Your task to perform on an android device: uninstall "DoorDash - Dasher" Image 0: 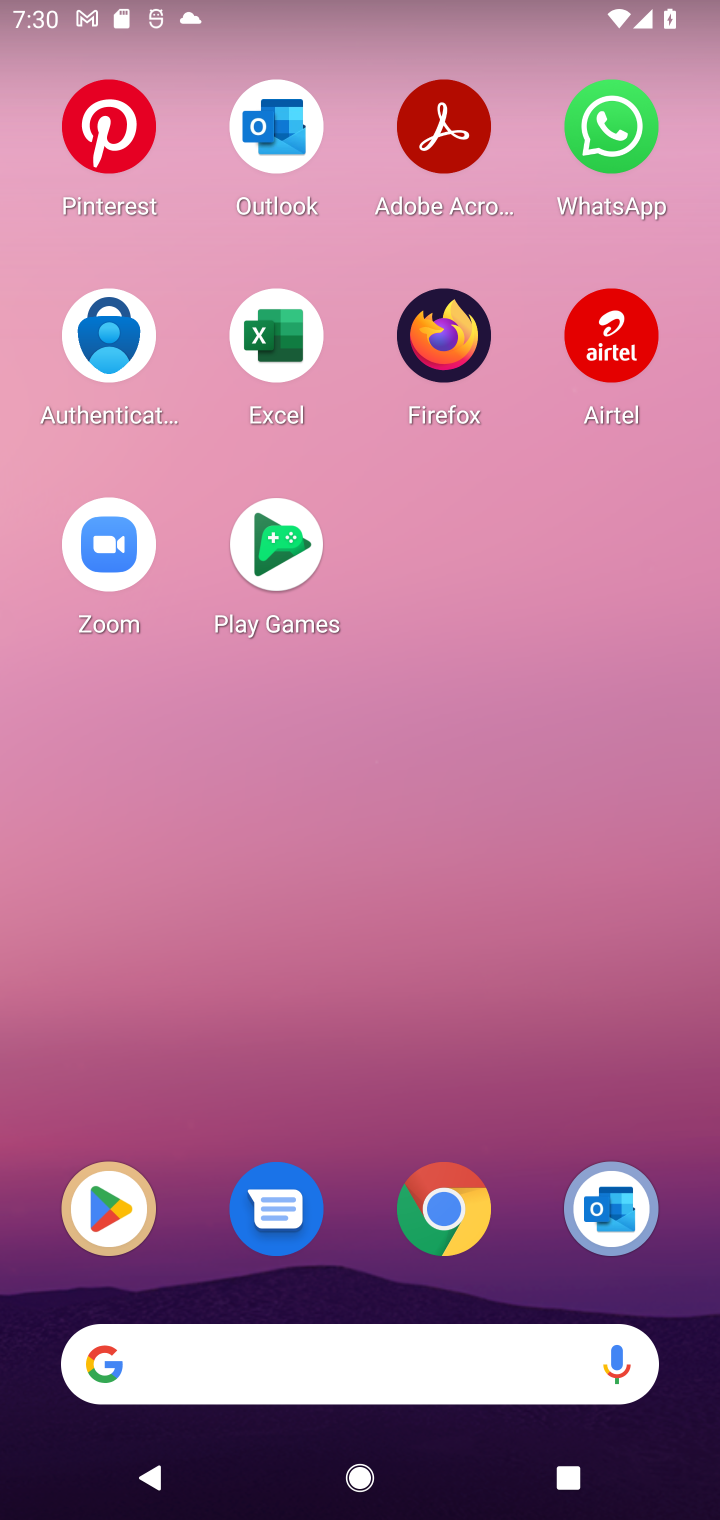
Step 0: drag from (411, 1290) to (438, 506)
Your task to perform on an android device: uninstall "DoorDash - Dasher" Image 1: 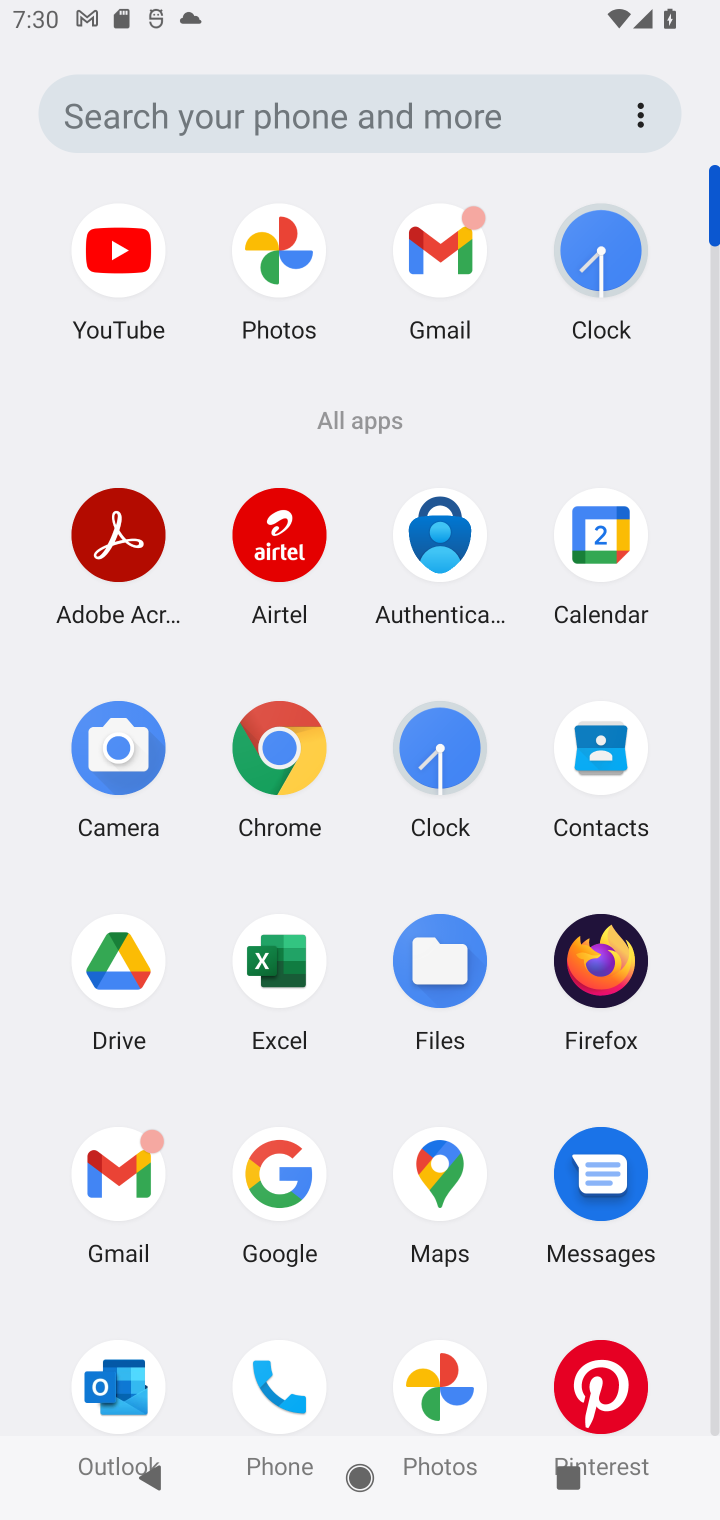
Step 1: drag from (336, 1052) to (370, 683)
Your task to perform on an android device: uninstall "DoorDash - Dasher" Image 2: 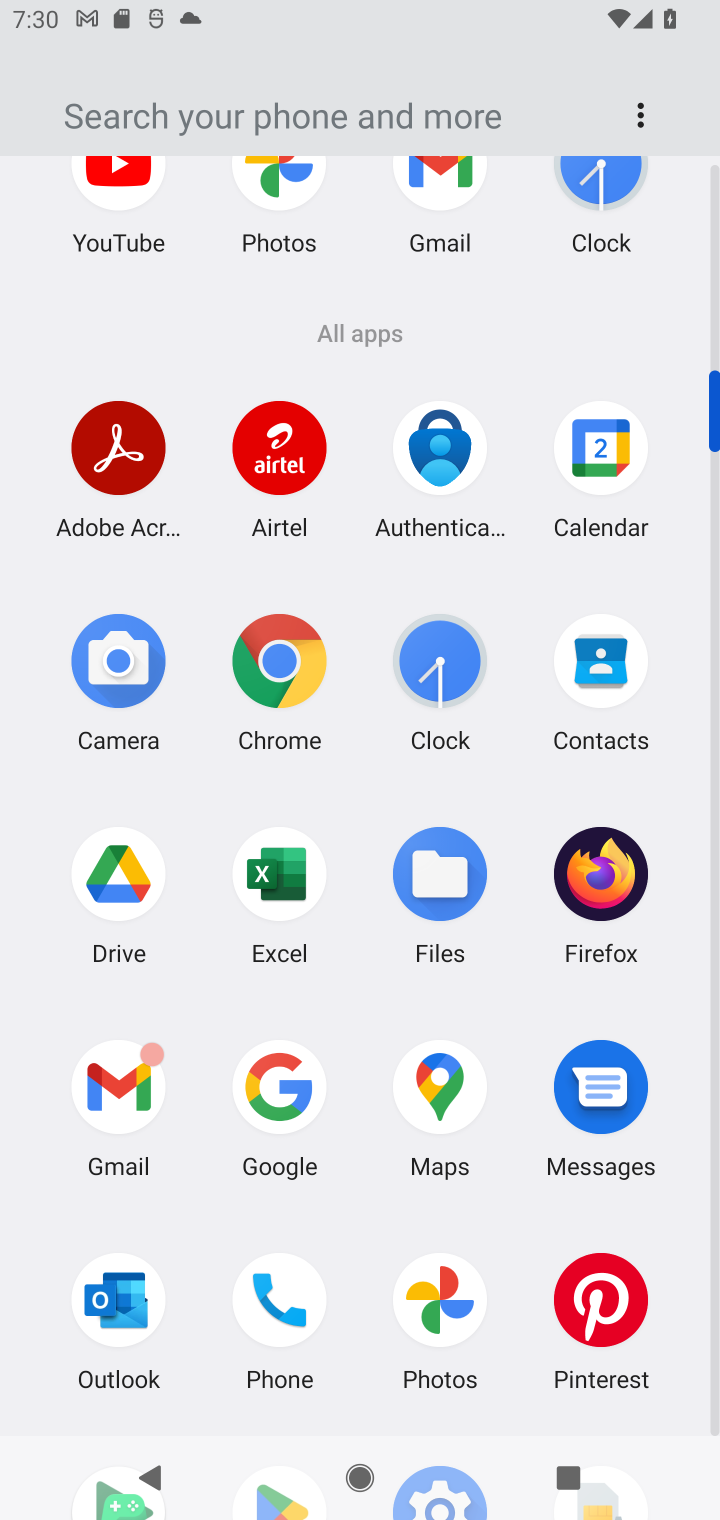
Step 2: drag from (355, 1379) to (354, 678)
Your task to perform on an android device: uninstall "DoorDash - Dasher" Image 3: 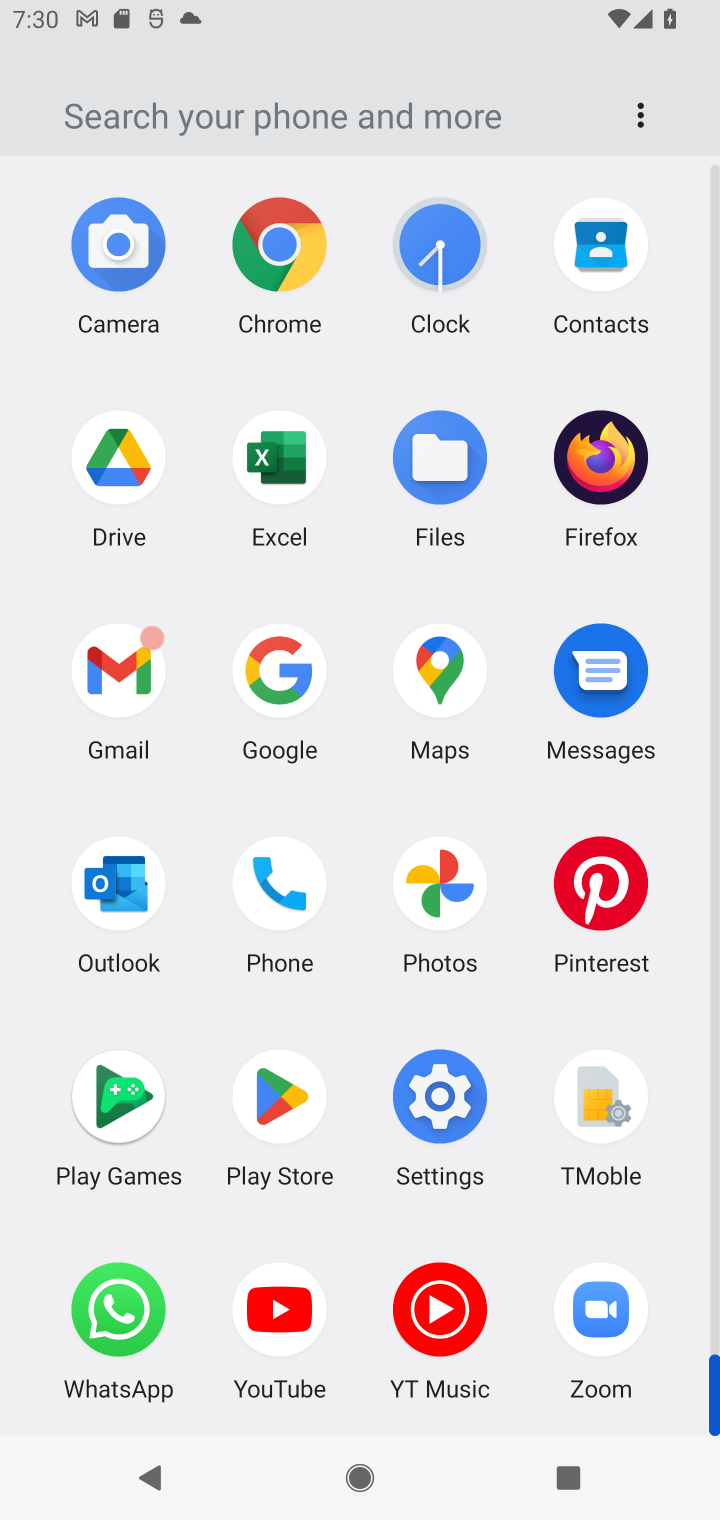
Step 3: click (285, 1091)
Your task to perform on an android device: uninstall "DoorDash - Dasher" Image 4: 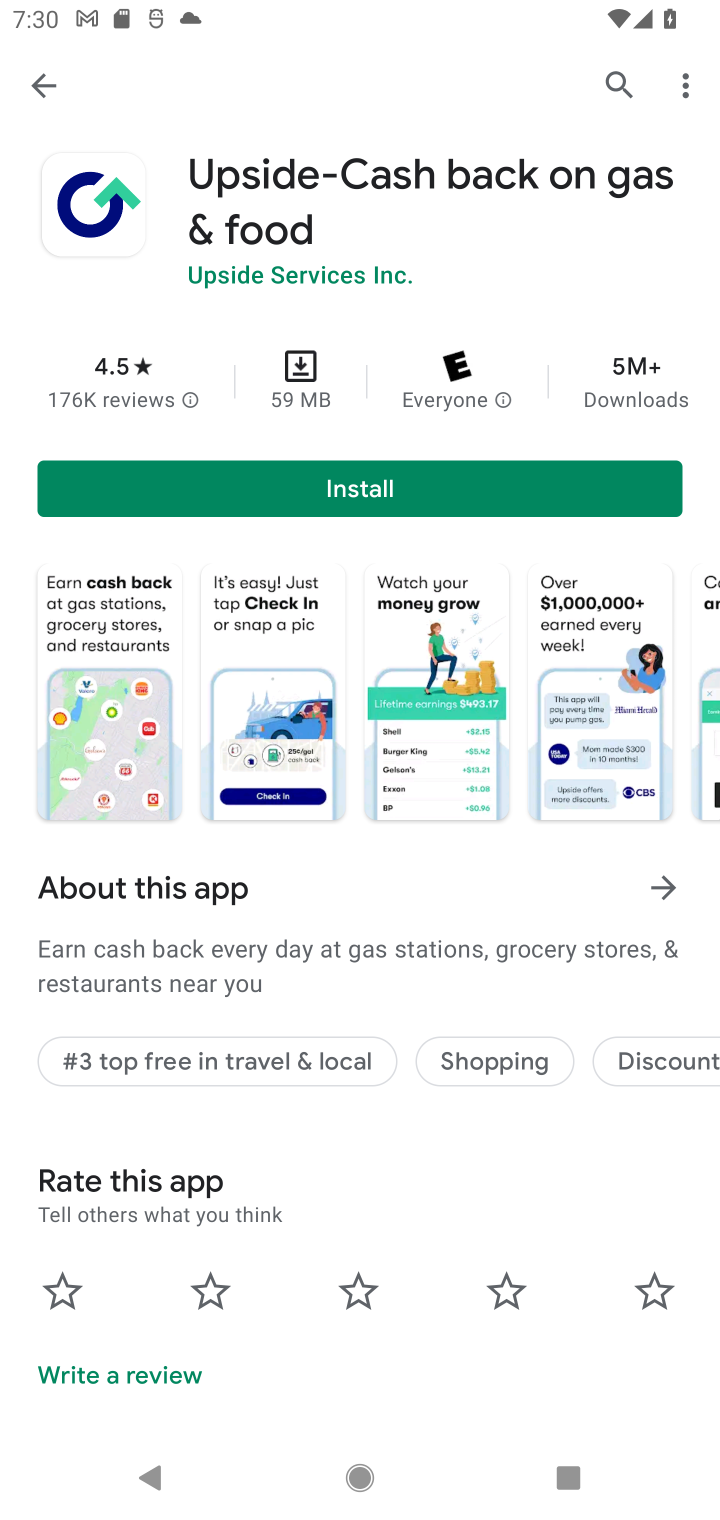
Step 4: click (619, 79)
Your task to perform on an android device: uninstall "DoorDash - Dasher" Image 5: 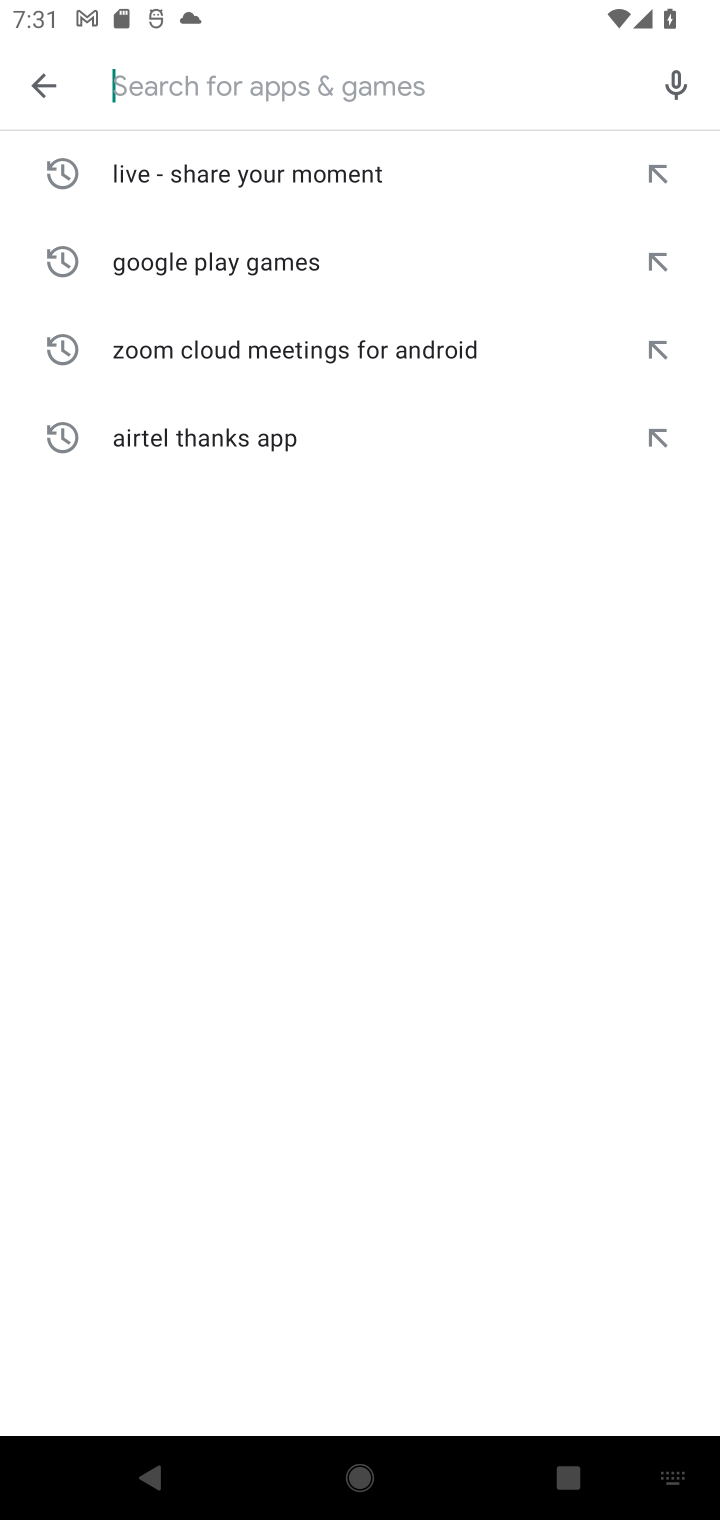
Step 5: type "DoorDash - Dashe"
Your task to perform on an android device: uninstall "DoorDash - Dasher" Image 6: 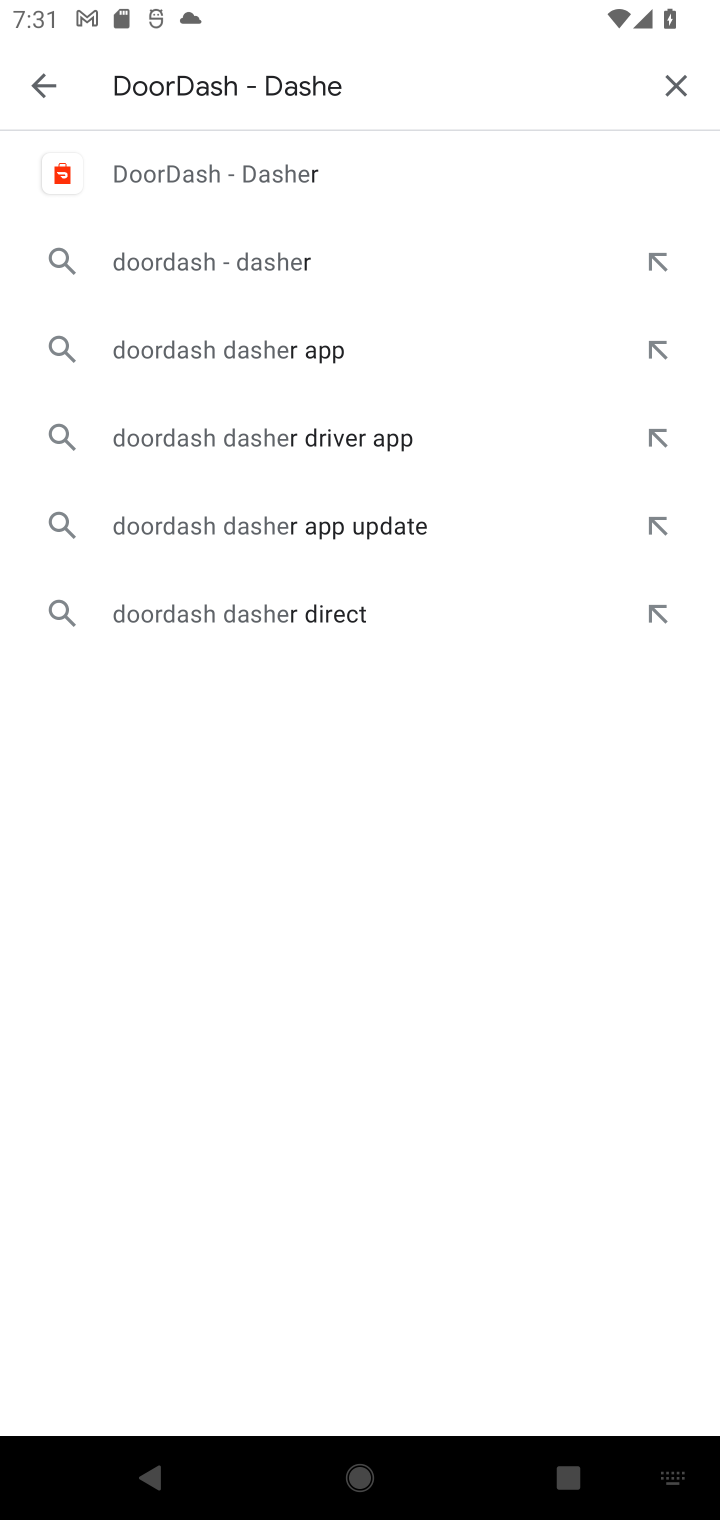
Step 6: click (283, 167)
Your task to perform on an android device: uninstall "DoorDash - Dasher" Image 7: 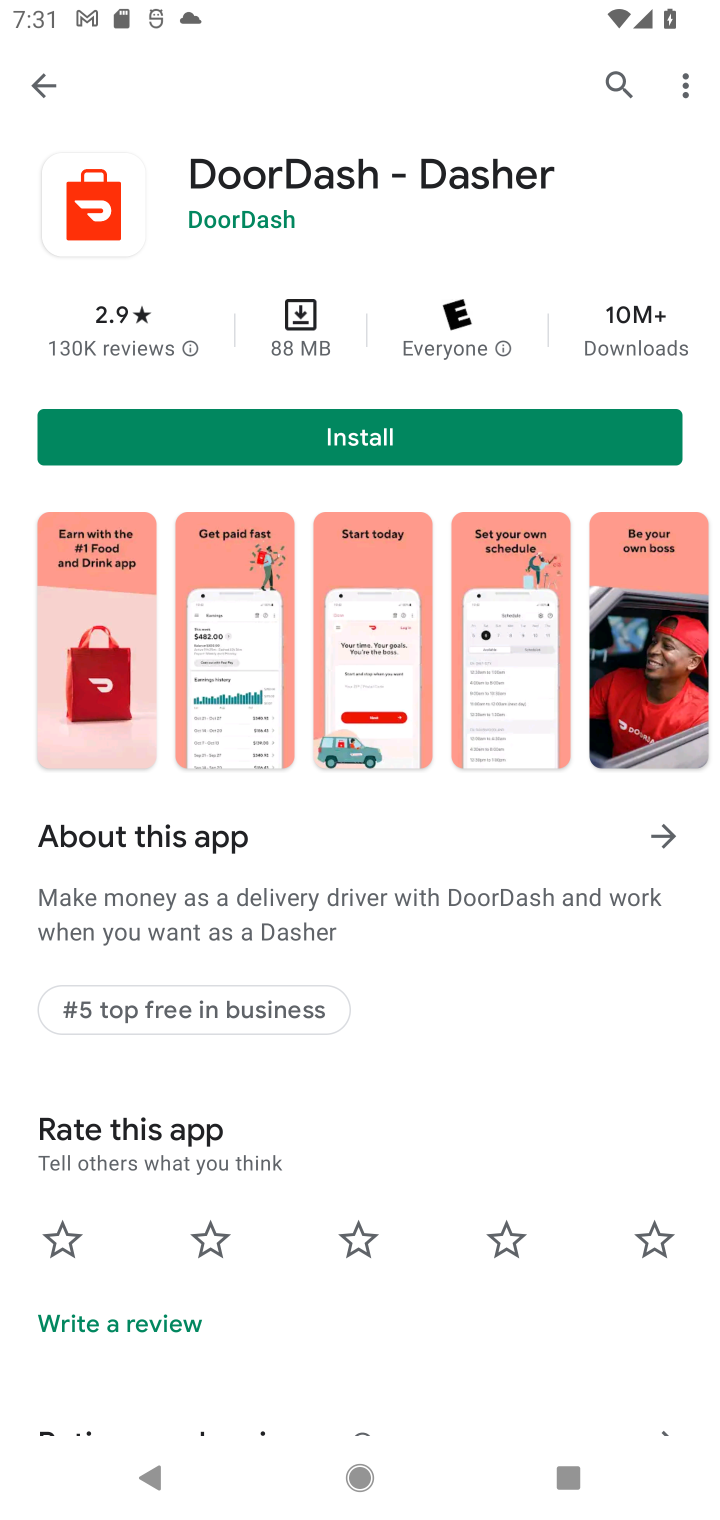
Step 7: task complete